Your task to perform on an android device: Go to Google Image 0: 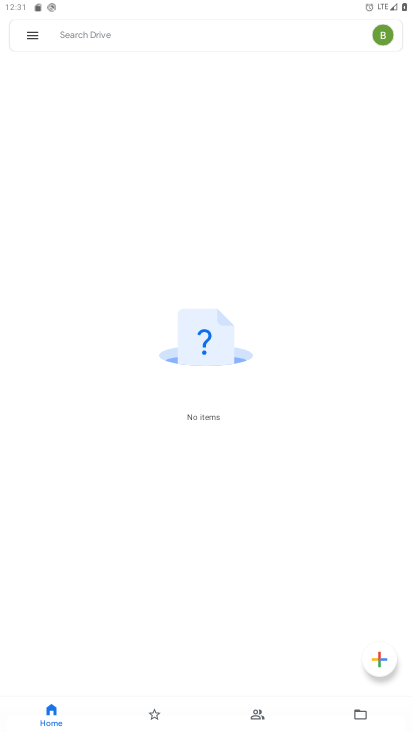
Step 0: press home button
Your task to perform on an android device: Go to Google Image 1: 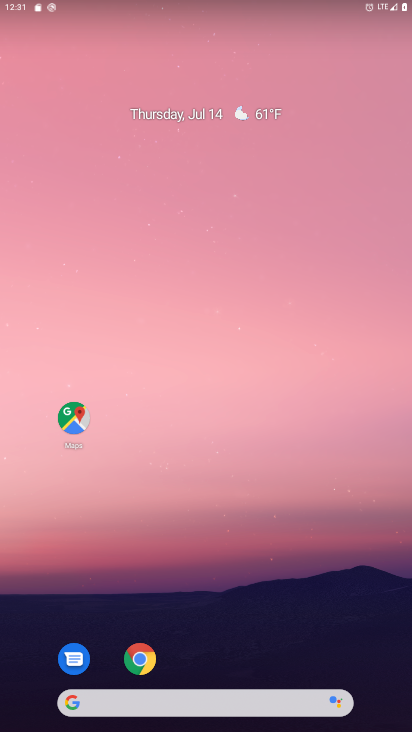
Step 1: drag from (217, 670) to (252, 1)
Your task to perform on an android device: Go to Google Image 2: 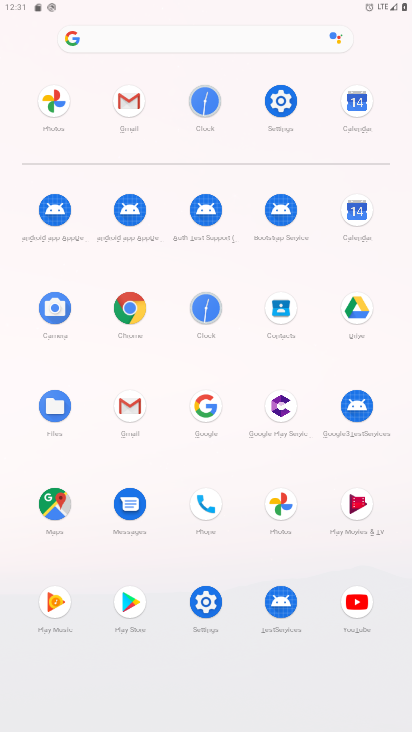
Step 2: click (203, 400)
Your task to perform on an android device: Go to Google Image 3: 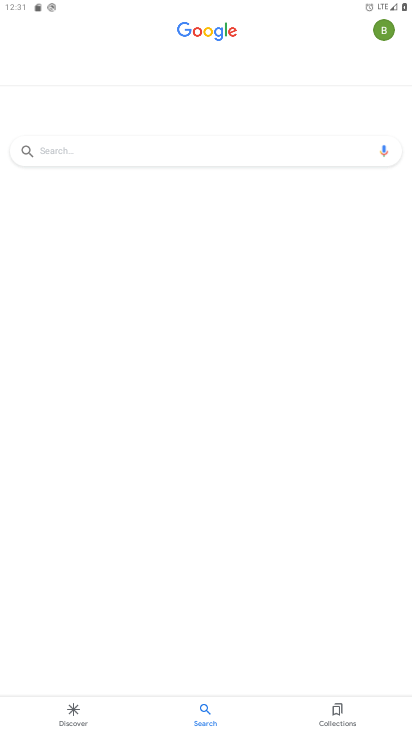
Step 3: task complete